Your task to perform on an android device: toggle wifi Image 0: 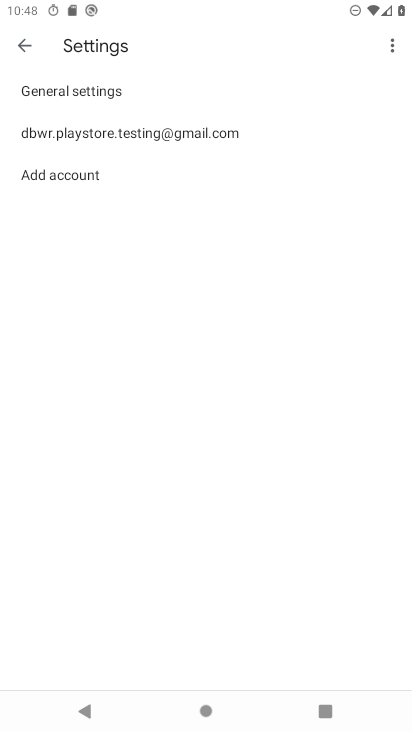
Step 0: press home button
Your task to perform on an android device: toggle wifi Image 1: 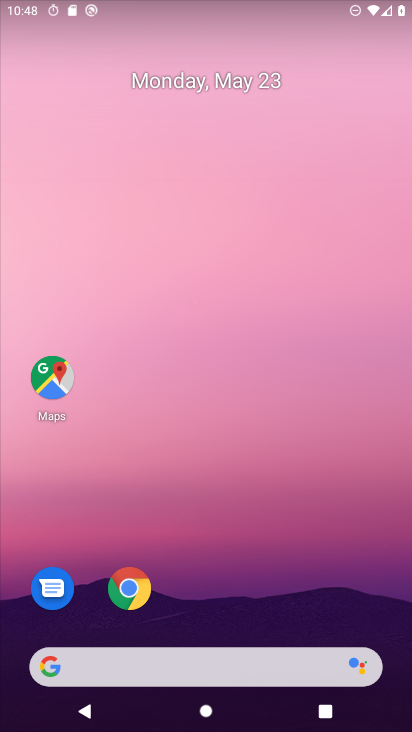
Step 1: drag from (397, 713) to (363, 126)
Your task to perform on an android device: toggle wifi Image 2: 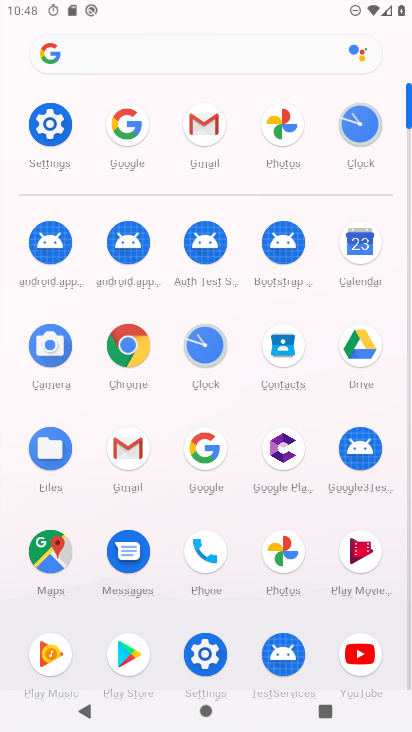
Step 2: click (203, 651)
Your task to perform on an android device: toggle wifi Image 3: 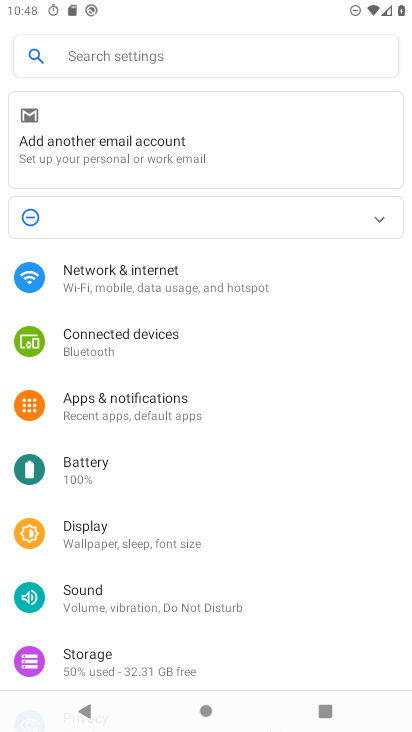
Step 3: click (111, 279)
Your task to perform on an android device: toggle wifi Image 4: 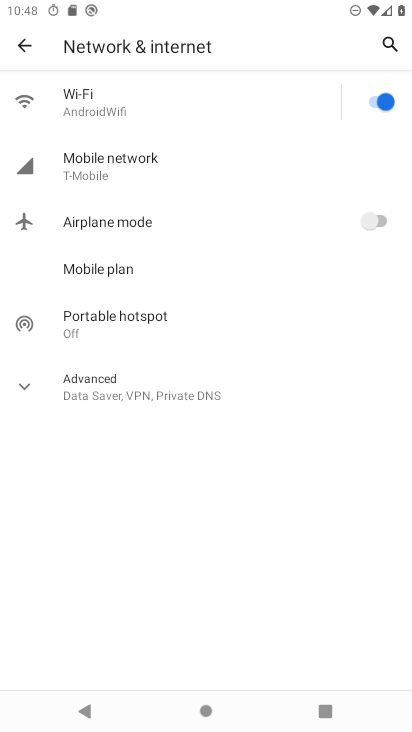
Step 4: click (373, 101)
Your task to perform on an android device: toggle wifi Image 5: 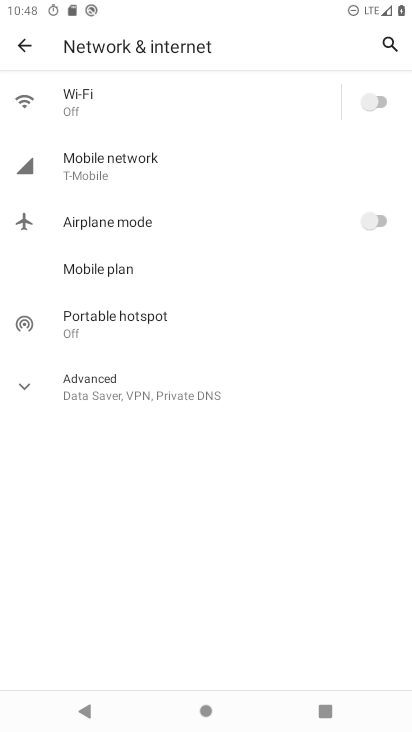
Step 5: task complete